Your task to perform on an android device: Open location settings Image 0: 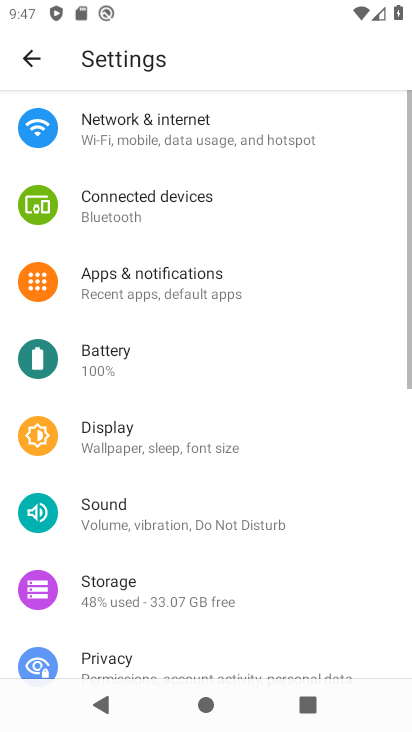
Step 0: press home button
Your task to perform on an android device: Open location settings Image 1: 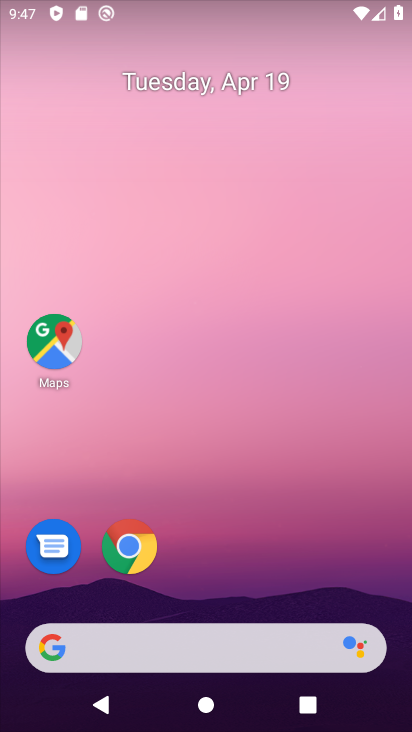
Step 1: drag from (269, 530) to (297, 69)
Your task to perform on an android device: Open location settings Image 2: 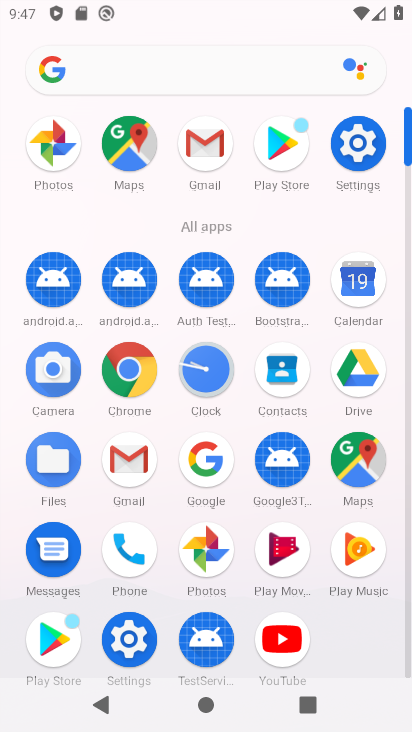
Step 2: click (358, 139)
Your task to perform on an android device: Open location settings Image 3: 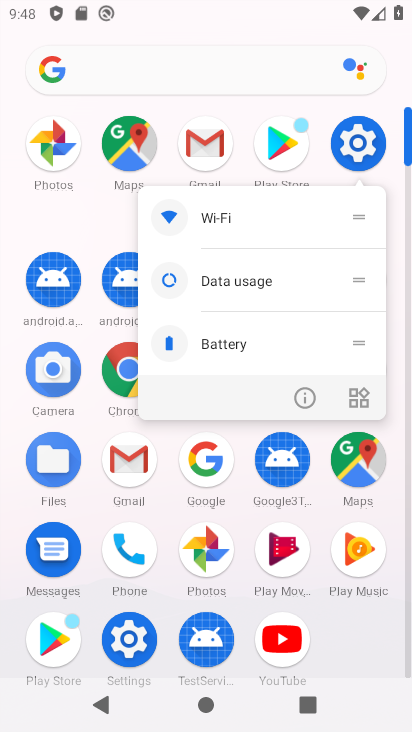
Step 3: click (357, 144)
Your task to perform on an android device: Open location settings Image 4: 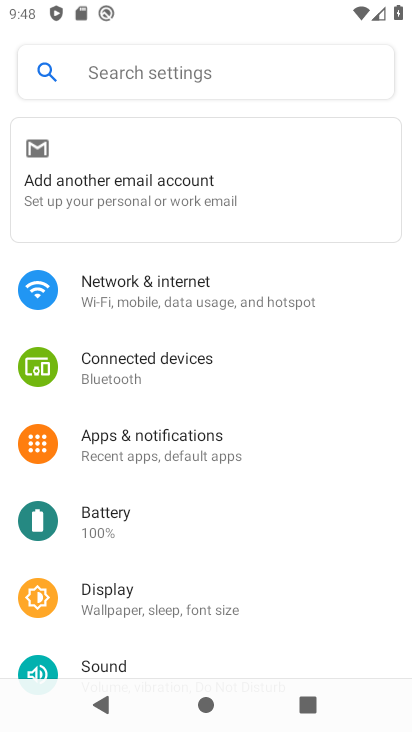
Step 4: drag from (256, 538) to (219, 135)
Your task to perform on an android device: Open location settings Image 5: 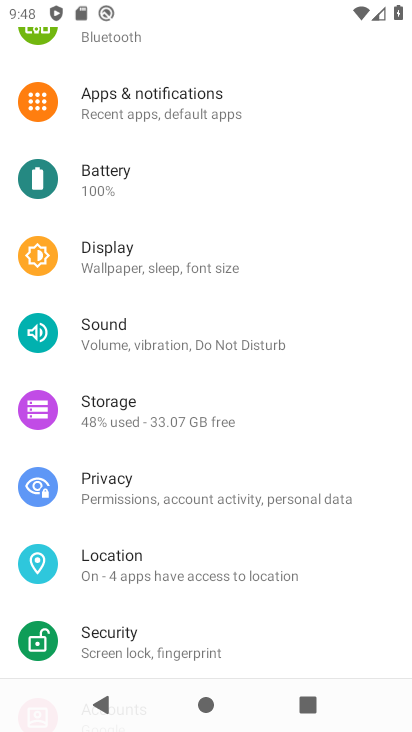
Step 5: click (128, 567)
Your task to perform on an android device: Open location settings Image 6: 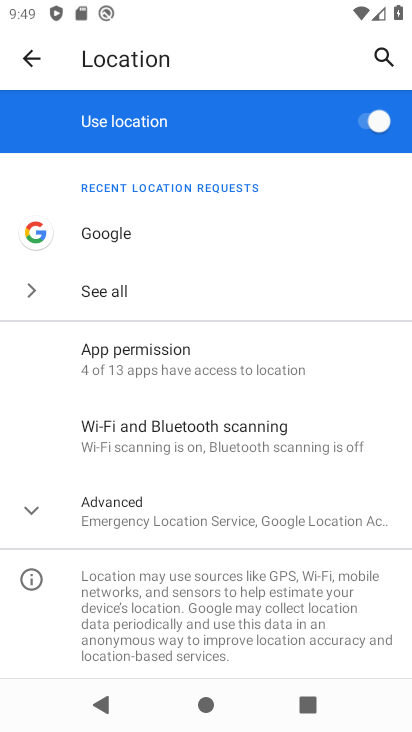
Step 6: task complete